Your task to perform on an android device: find snoozed emails in the gmail app Image 0: 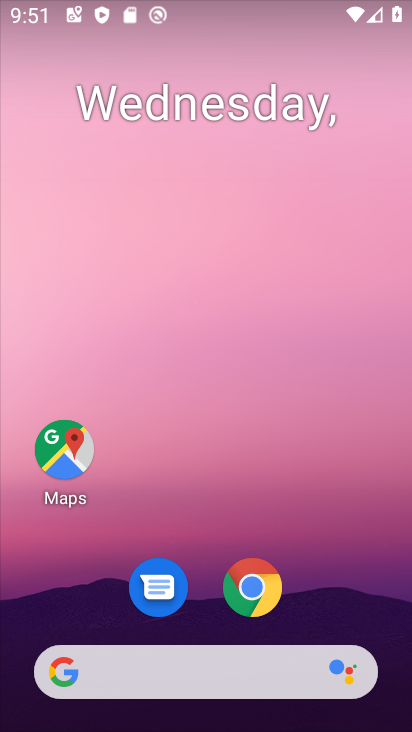
Step 0: press home button
Your task to perform on an android device: find snoozed emails in the gmail app Image 1: 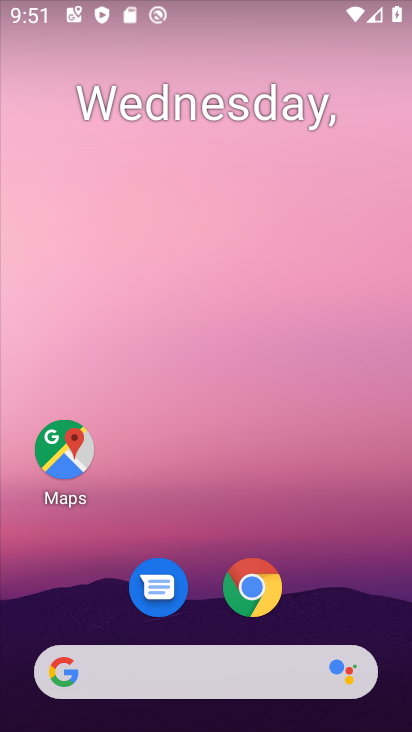
Step 1: drag from (372, 627) to (355, 328)
Your task to perform on an android device: find snoozed emails in the gmail app Image 2: 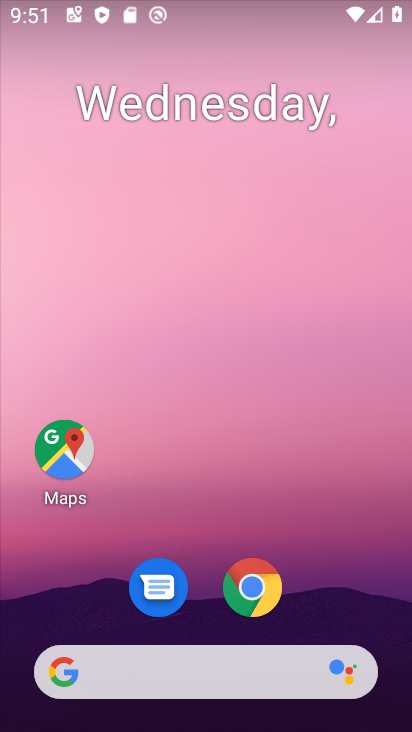
Step 2: drag from (357, 634) to (357, 170)
Your task to perform on an android device: find snoozed emails in the gmail app Image 3: 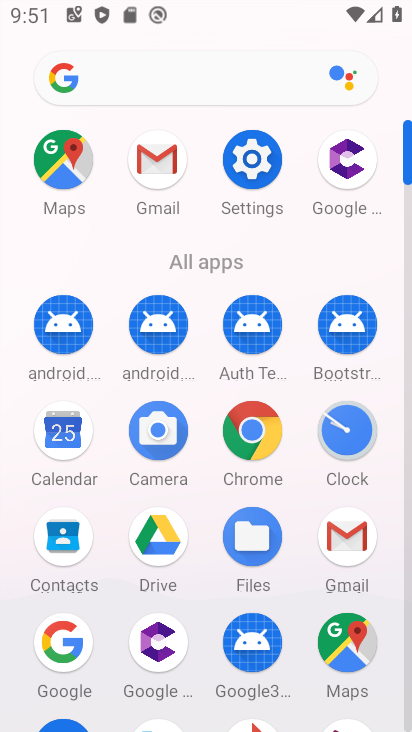
Step 3: click (166, 166)
Your task to perform on an android device: find snoozed emails in the gmail app Image 4: 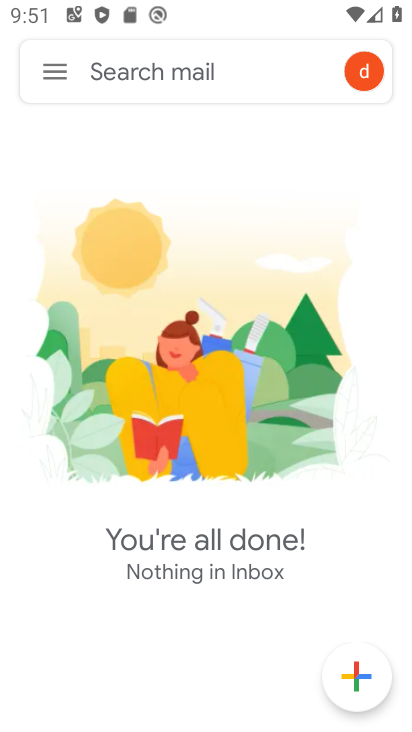
Step 4: click (57, 81)
Your task to perform on an android device: find snoozed emails in the gmail app Image 5: 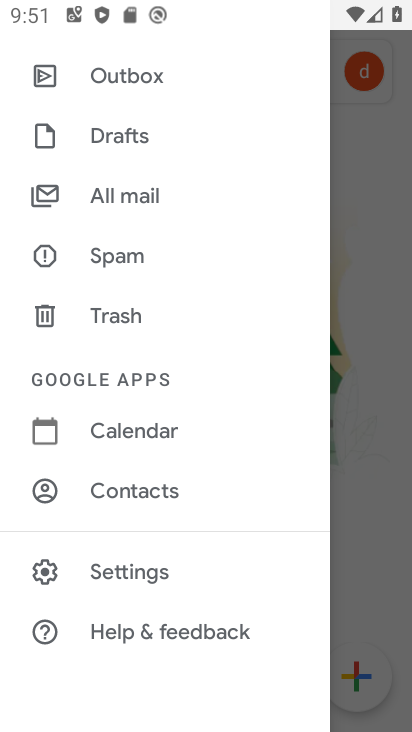
Step 5: drag from (174, 104) to (165, 644)
Your task to perform on an android device: find snoozed emails in the gmail app Image 6: 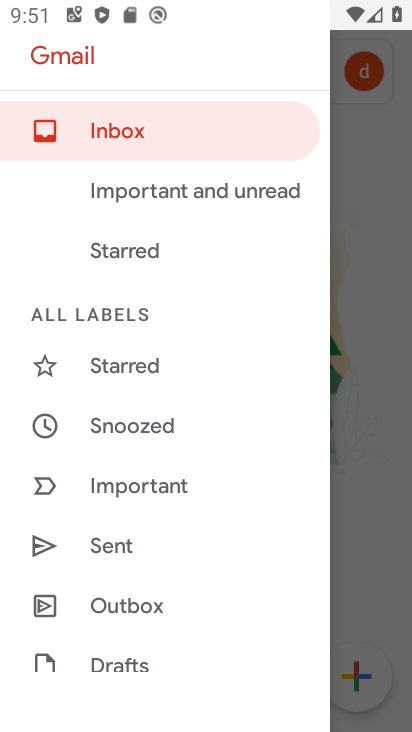
Step 6: click (124, 426)
Your task to perform on an android device: find snoozed emails in the gmail app Image 7: 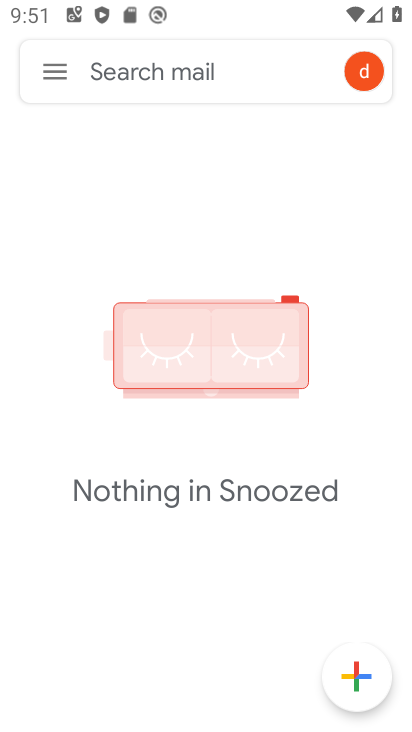
Step 7: task complete